Your task to perform on an android device: Go to sound settings Image 0: 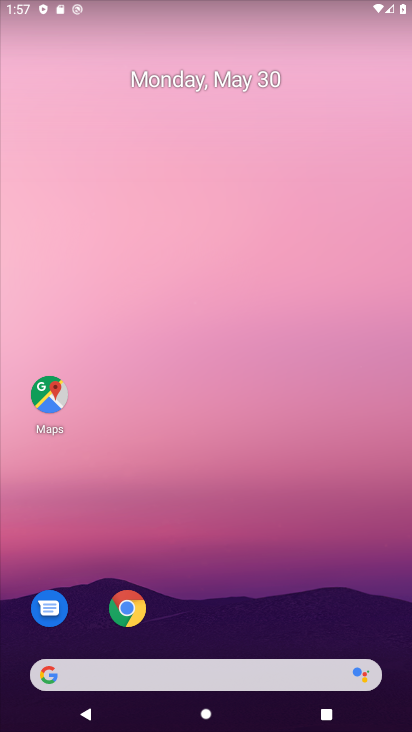
Step 0: drag from (318, 393) to (121, 10)
Your task to perform on an android device: Go to sound settings Image 1: 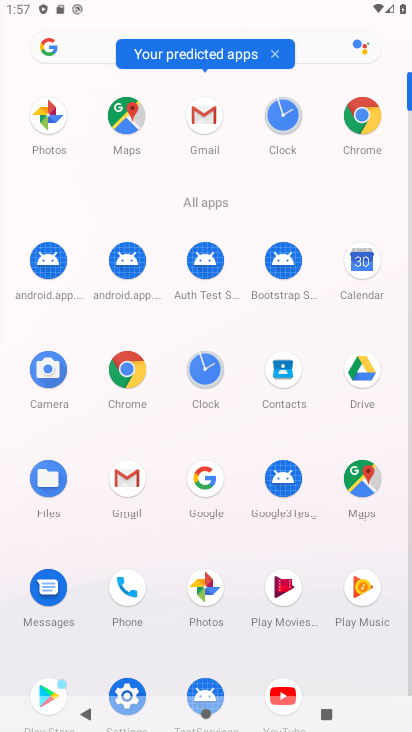
Step 1: click (138, 687)
Your task to perform on an android device: Go to sound settings Image 2: 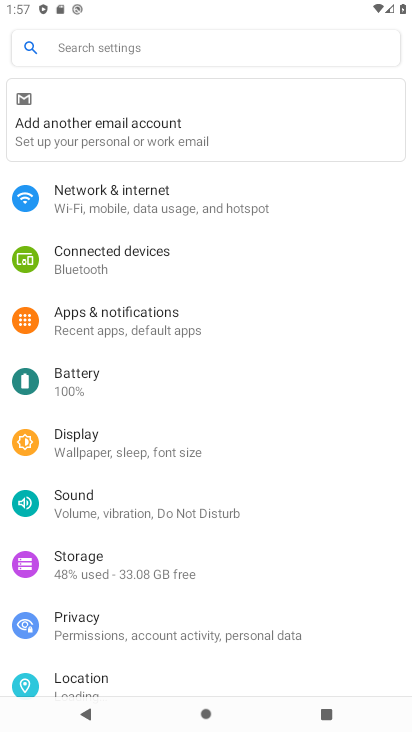
Step 2: click (166, 520)
Your task to perform on an android device: Go to sound settings Image 3: 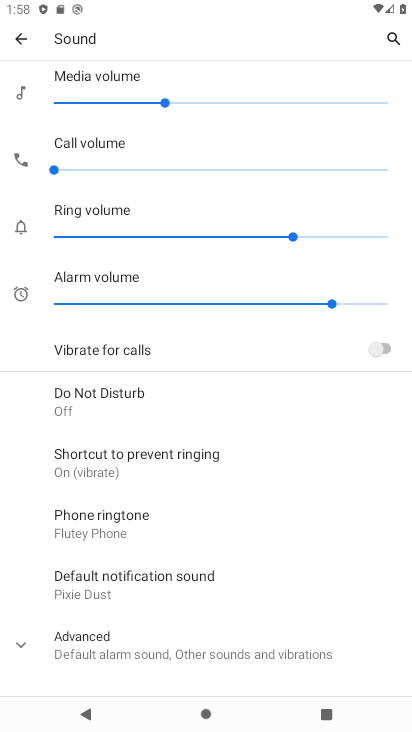
Step 3: task complete